Your task to perform on an android device: Open wifi settings Image 0: 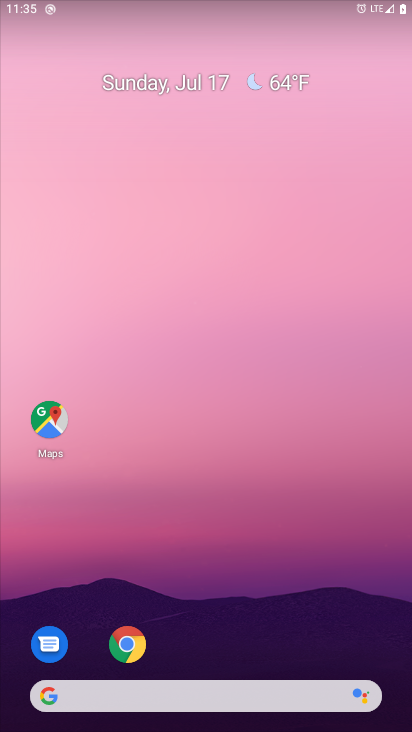
Step 0: press home button
Your task to perform on an android device: Open wifi settings Image 1: 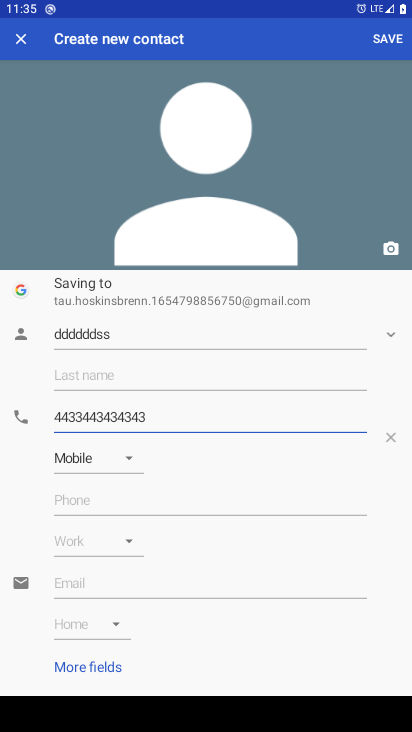
Step 1: press home button
Your task to perform on an android device: Open wifi settings Image 2: 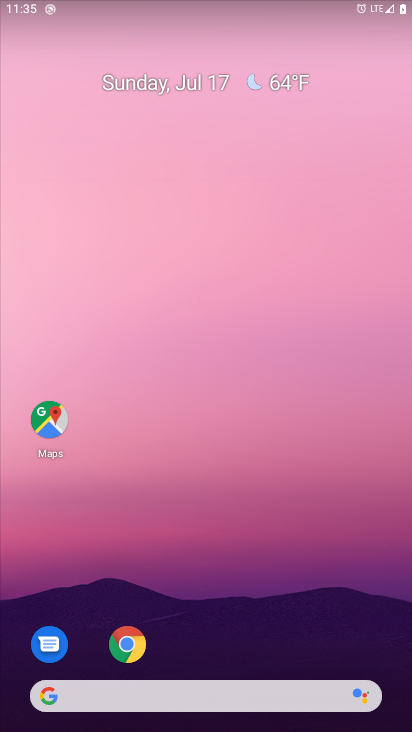
Step 2: drag from (273, 649) to (323, 209)
Your task to perform on an android device: Open wifi settings Image 3: 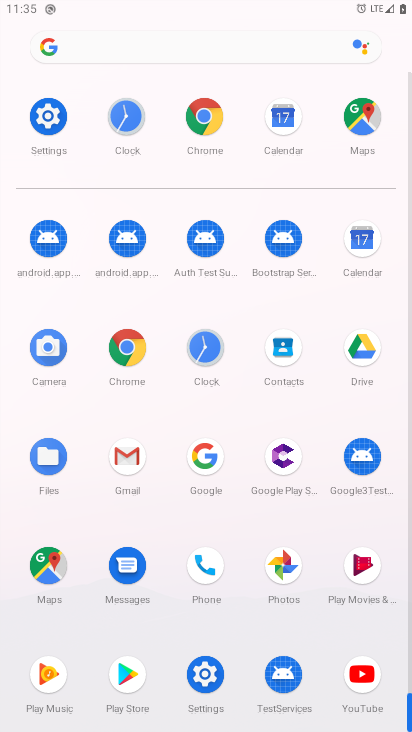
Step 3: click (36, 101)
Your task to perform on an android device: Open wifi settings Image 4: 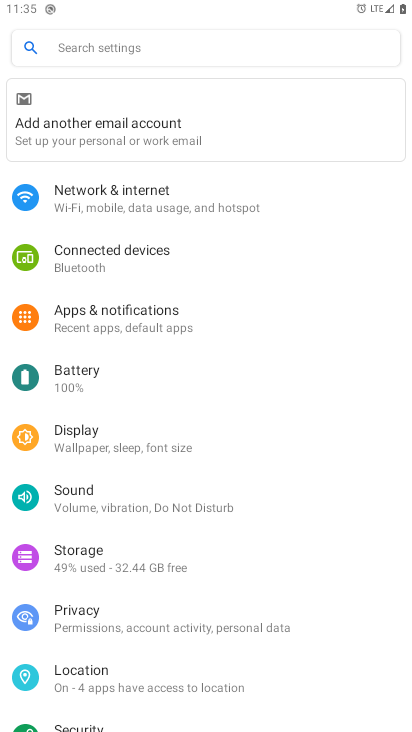
Step 4: click (142, 200)
Your task to perform on an android device: Open wifi settings Image 5: 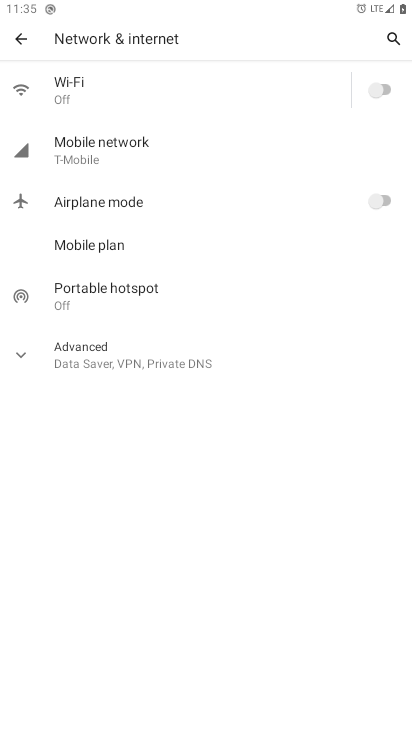
Step 5: click (122, 86)
Your task to perform on an android device: Open wifi settings Image 6: 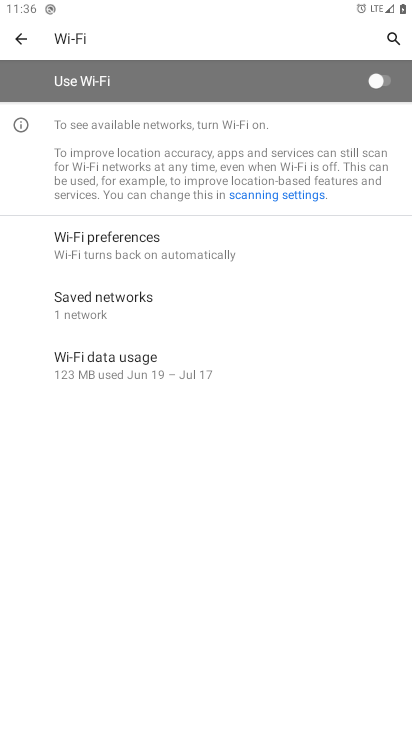
Step 6: task complete